Your task to perform on an android device: install app "ZOOM Cloud Meetings" Image 0: 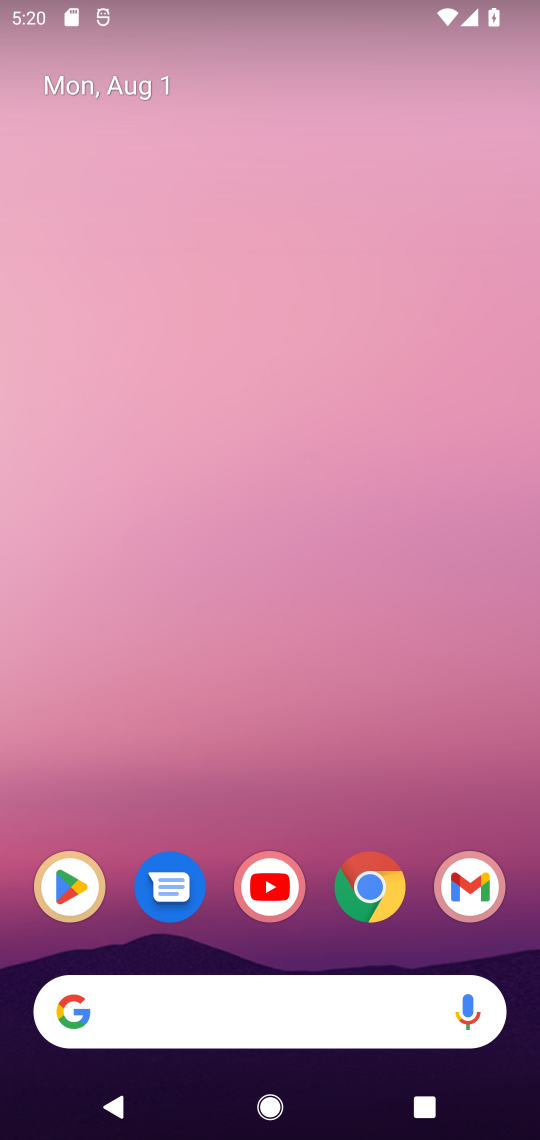
Step 0: click (80, 878)
Your task to perform on an android device: install app "ZOOM Cloud Meetings" Image 1: 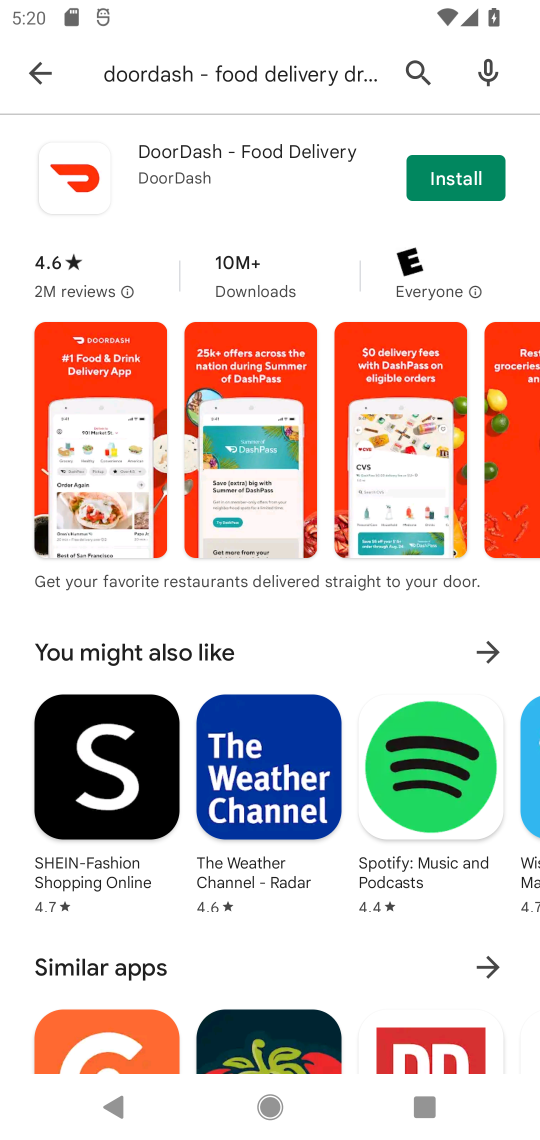
Step 1: click (41, 58)
Your task to perform on an android device: install app "ZOOM Cloud Meetings" Image 2: 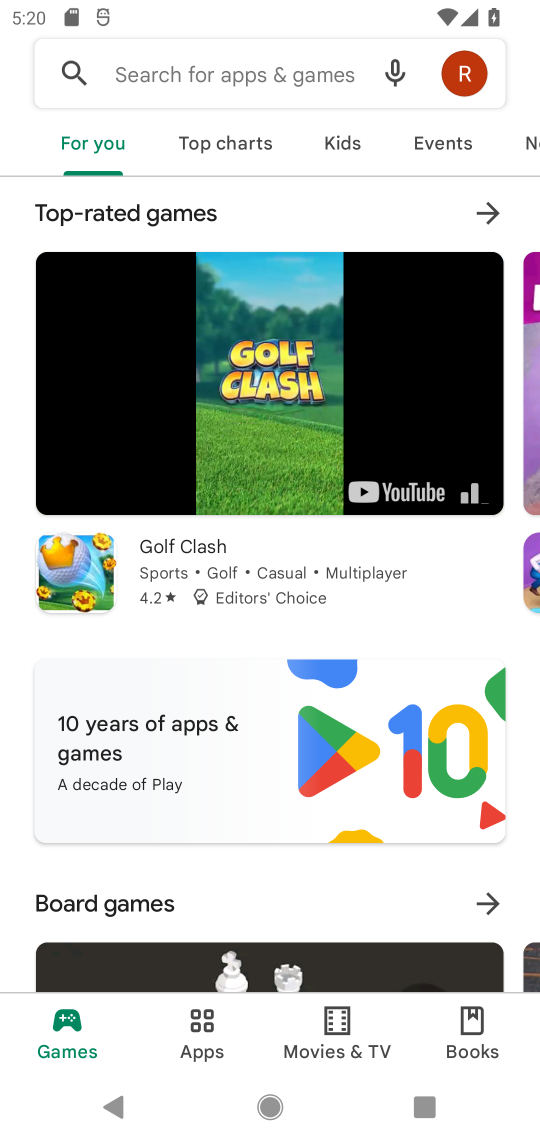
Step 2: click (316, 73)
Your task to perform on an android device: install app "ZOOM Cloud Meetings" Image 3: 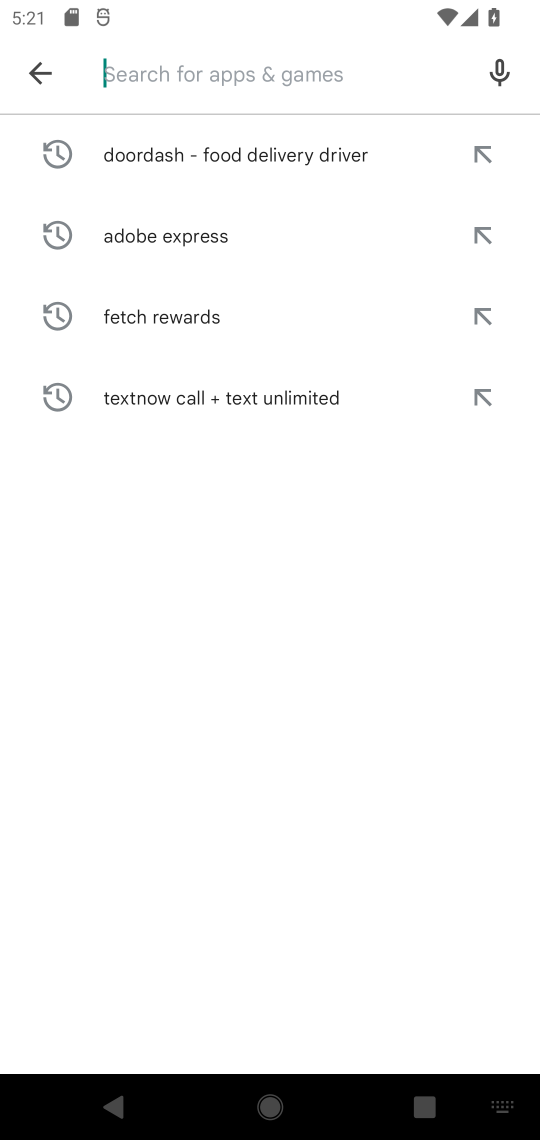
Step 3: type "ZOOM Cloud Meetings"
Your task to perform on an android device: install app "ZOOM Cloud Meetings" Image 4: 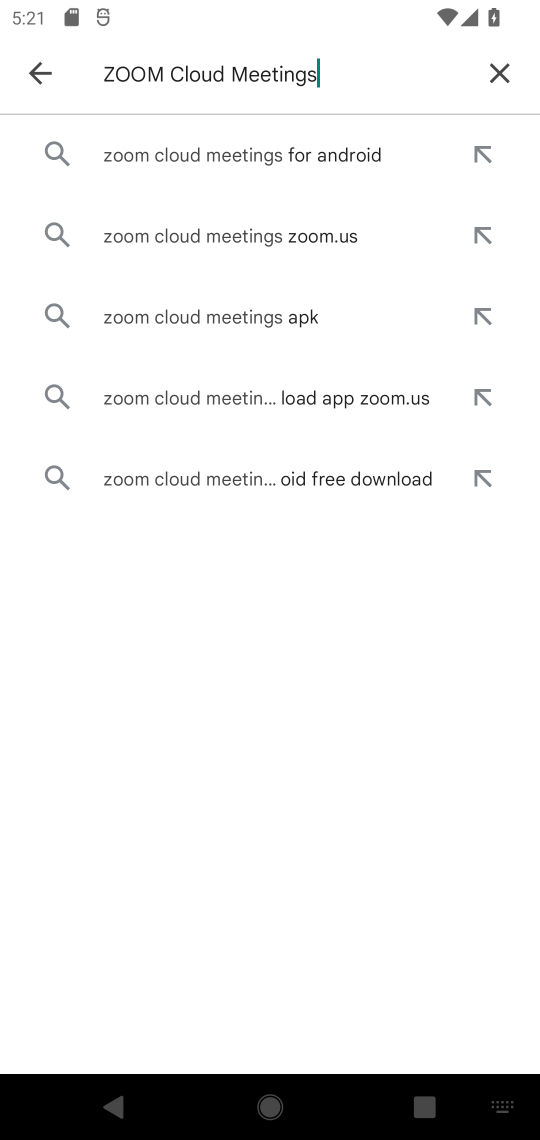
Step 4: click (206, 226)
Your task to perform on an android device: install app "ZOOM Cloud Meetings" Image 5: 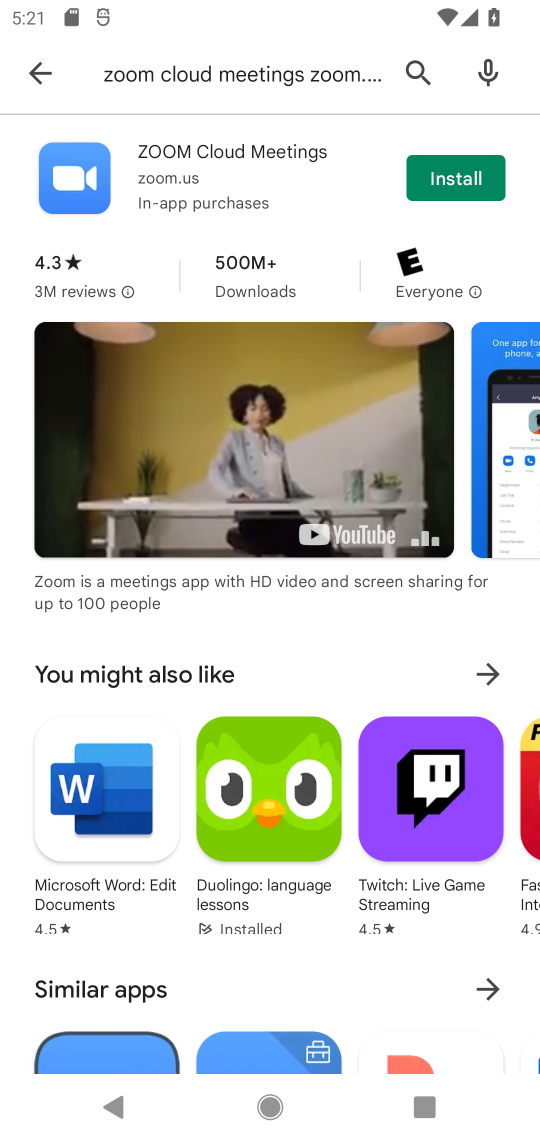
Step 5: click (467, 161)
Your task to perform on an android device: install app "ZOOM Cloud Meetings" Image 6: 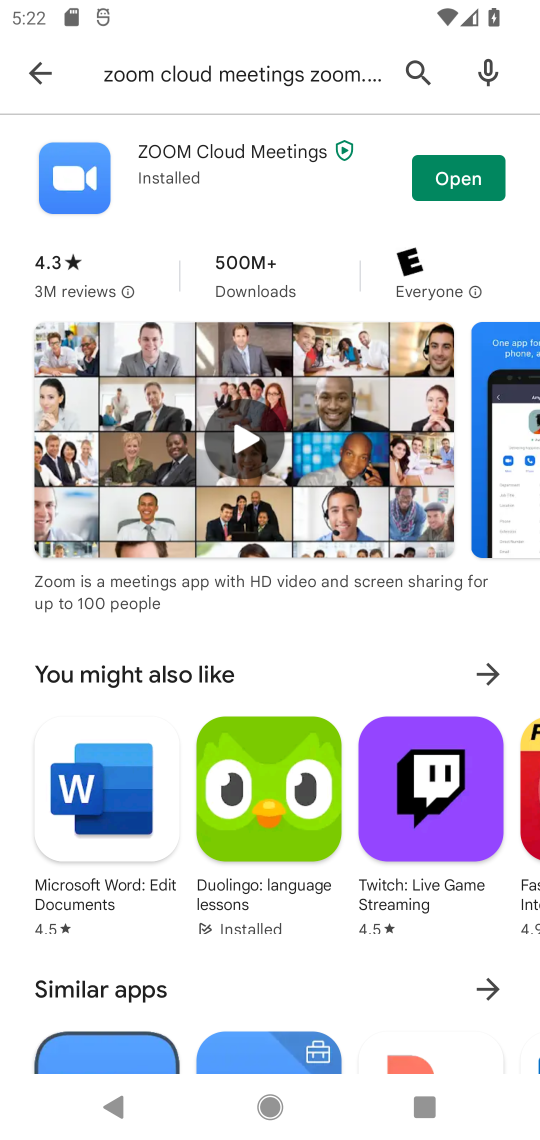
Step 6: click (454, 182)
Your task to perform on an android device: install app "ZOOM Cloud Meetings" Image 7: 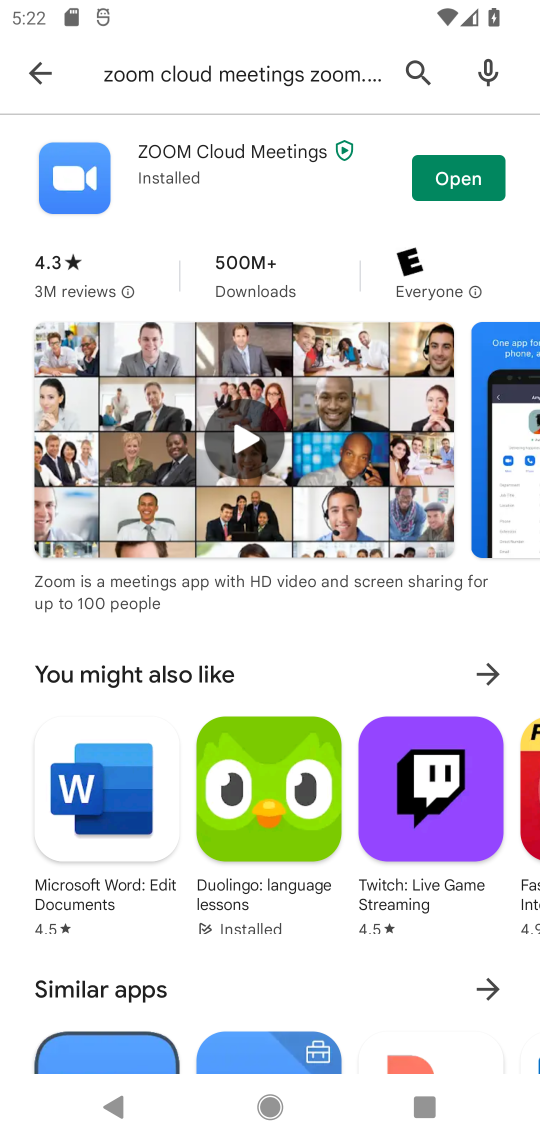
Step 7: task complete